Your task to perform on an android device: Go to display settings Image 0: 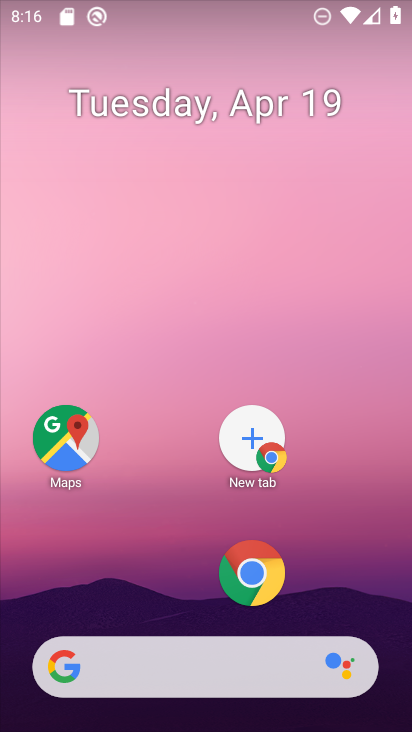
Step 0: drag from (131, 611) to (193, 226)
Your task to perform on an android device: Go to display settings Image 1: 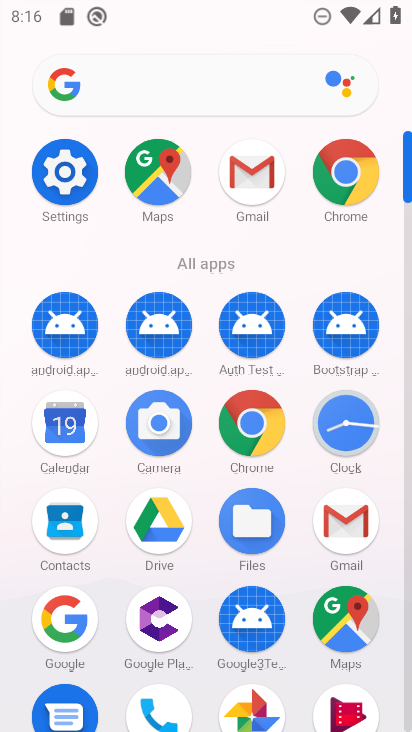
Step 1: click (78, 186)
Your task to perform on an android device: Go to display settings Image 2: 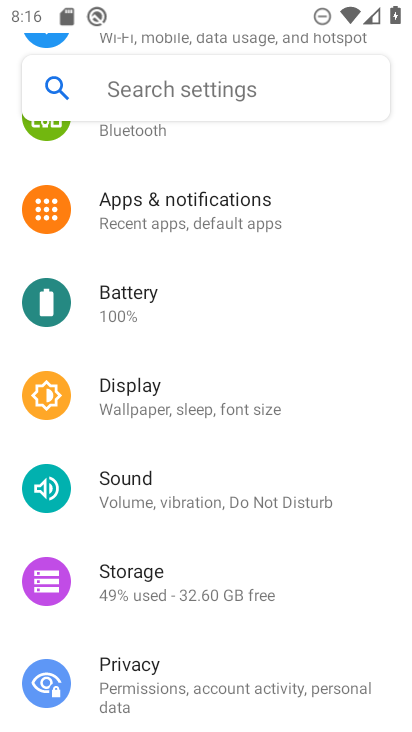
Step 2: click (133, 408)
Your task to perform on an android device: Go to display settings Image 3: 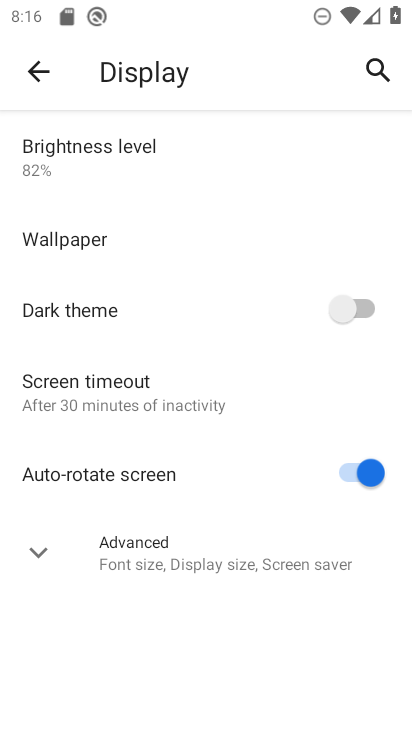
Step 3: task complete